Your task to perform on an android device: Go to notification settings Image 0: 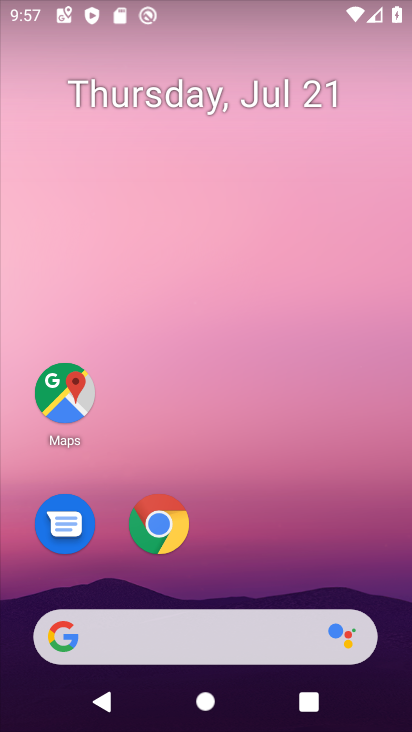
Step 0: drag from (142, 638) to (292, 21)
Your task to perform on an android device: Go to notification settings Image 1: 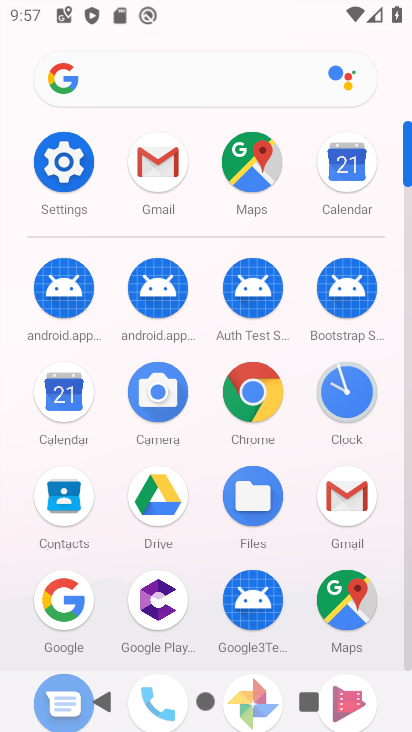
Step 1: click (69, 162)
Your task to perform on an android device: Go to notification settings Image 2: 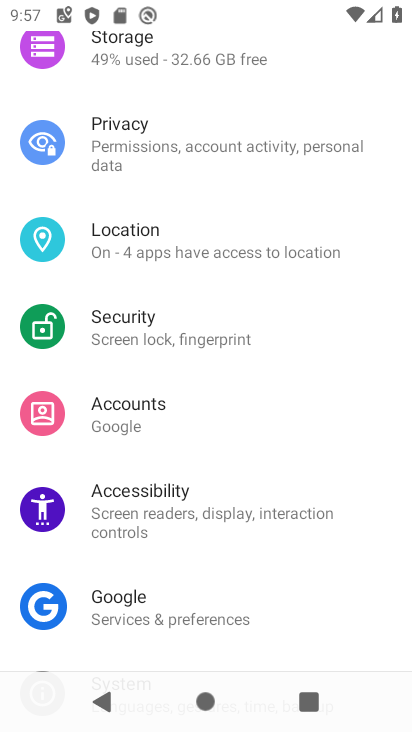
Step 2: drag from (302, 100) to (251, 579)
Your task to perform on an android device: Go to notification settings Image 3: 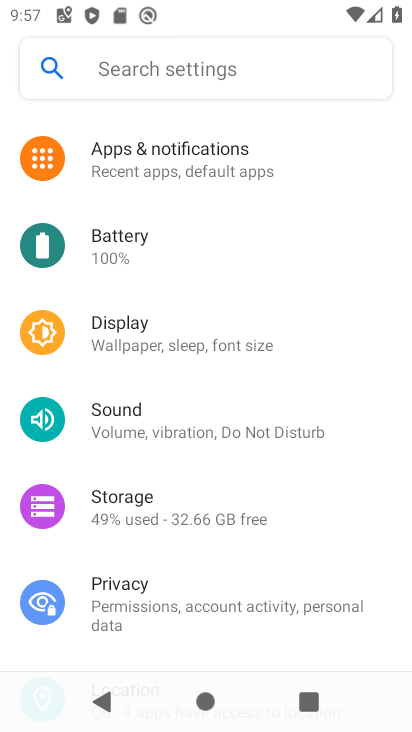
Step 3: click (204, 150)
Your task to perform on an android device: Go to notification settings Image 4: 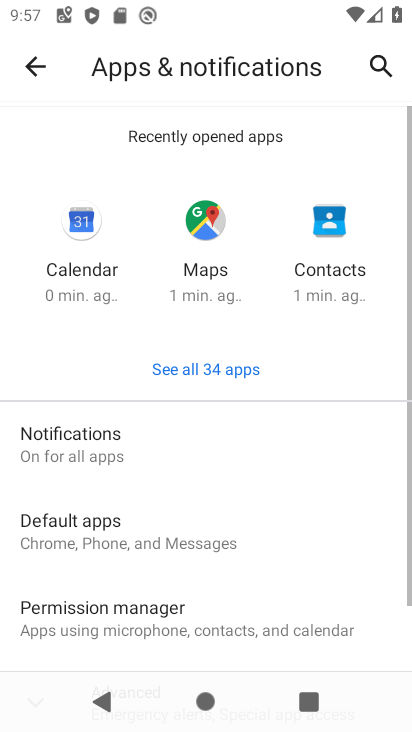
Step 4: click (98, 436)
Your task to perform on an android device: Go to notification settings Image 5: 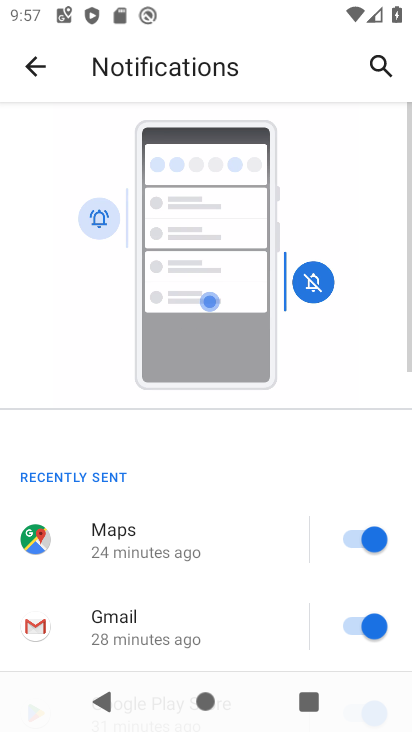
Step 5: task complete